Your task to perform on an android device: move an email to a new category in the gmail app Image 0: 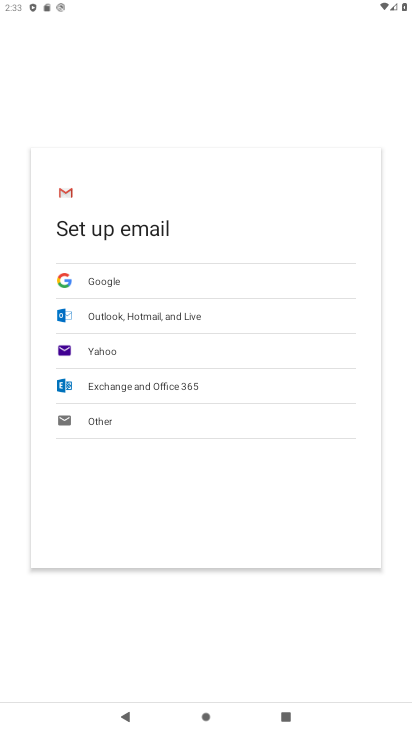
Step 0: task impossible